Your task to perform on an android device: allow notifications from all sites in the chrome app Image 0: 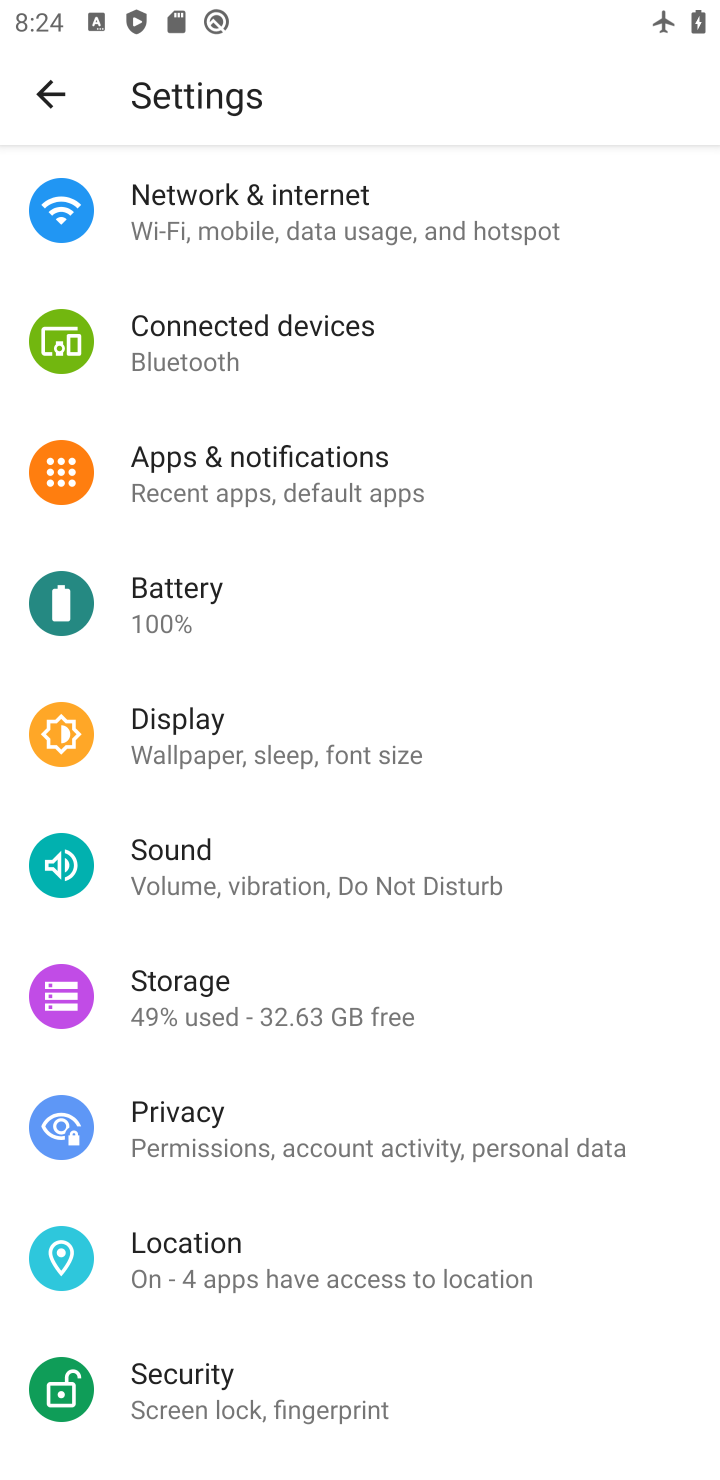
Step 0: click (408, 467)
Your task to perform on an android device: allow notifications from all sites in the chrome app Image 1: 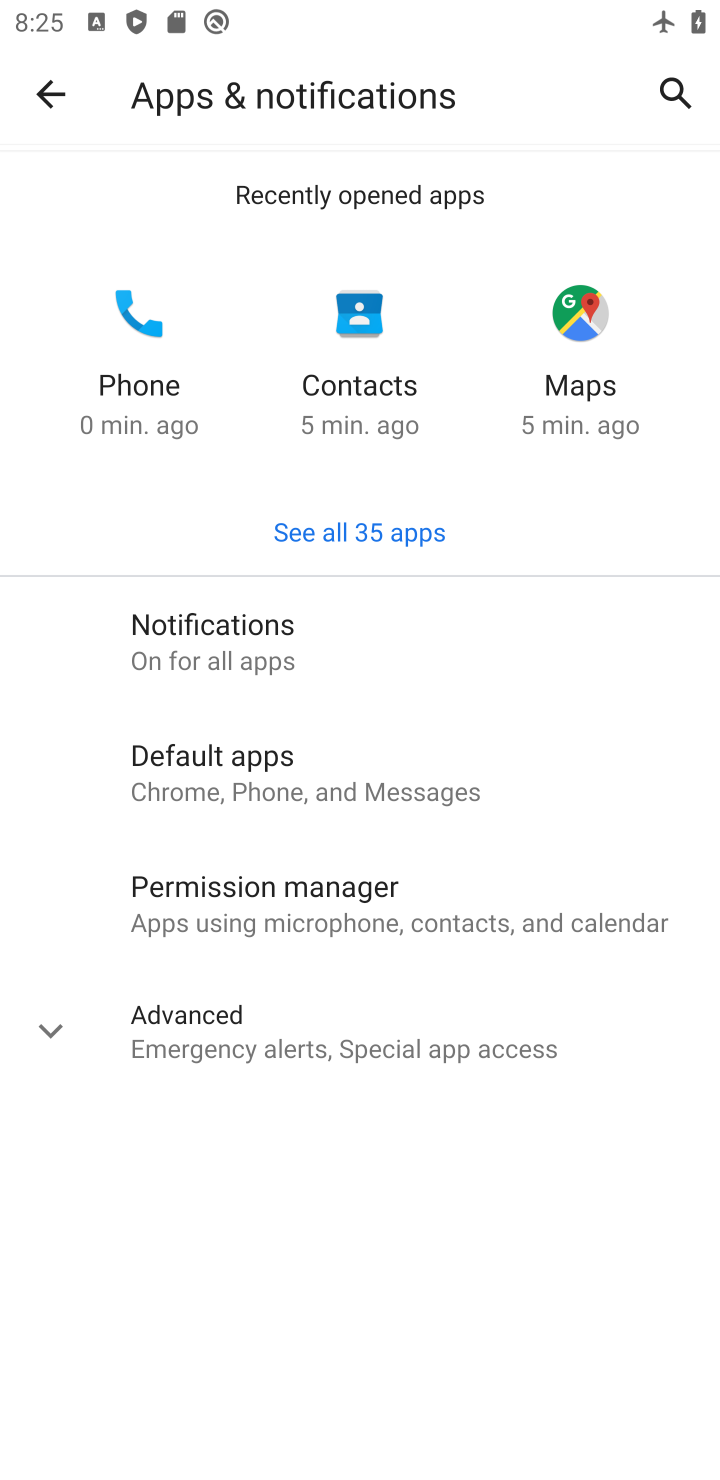
Step 1: click (375, 643)
Your task to perform on an android device: allow notifications from all sites in the chrome app Image 2: 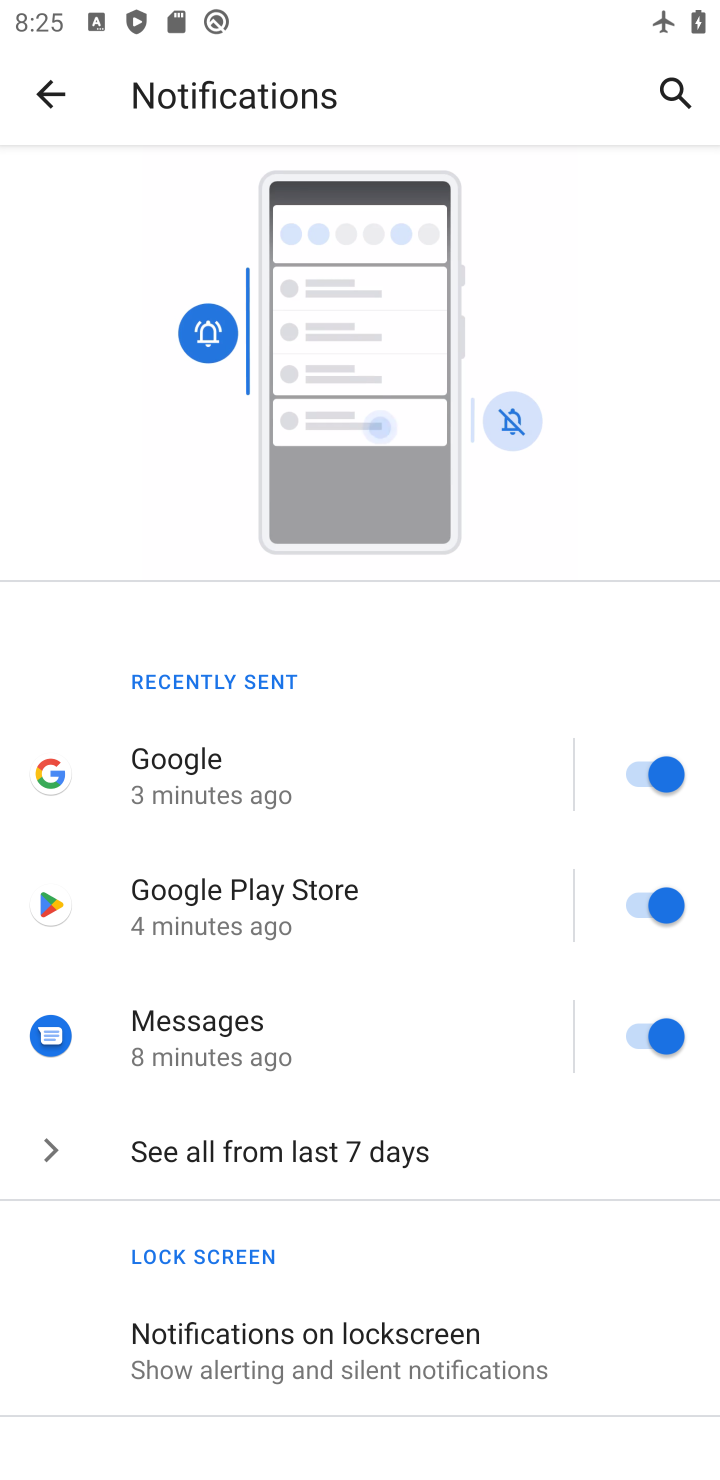
Step 2: click (333, 1139)
Your task to perform on an android device: allow notifications from all sites in the chrome app Image 3: 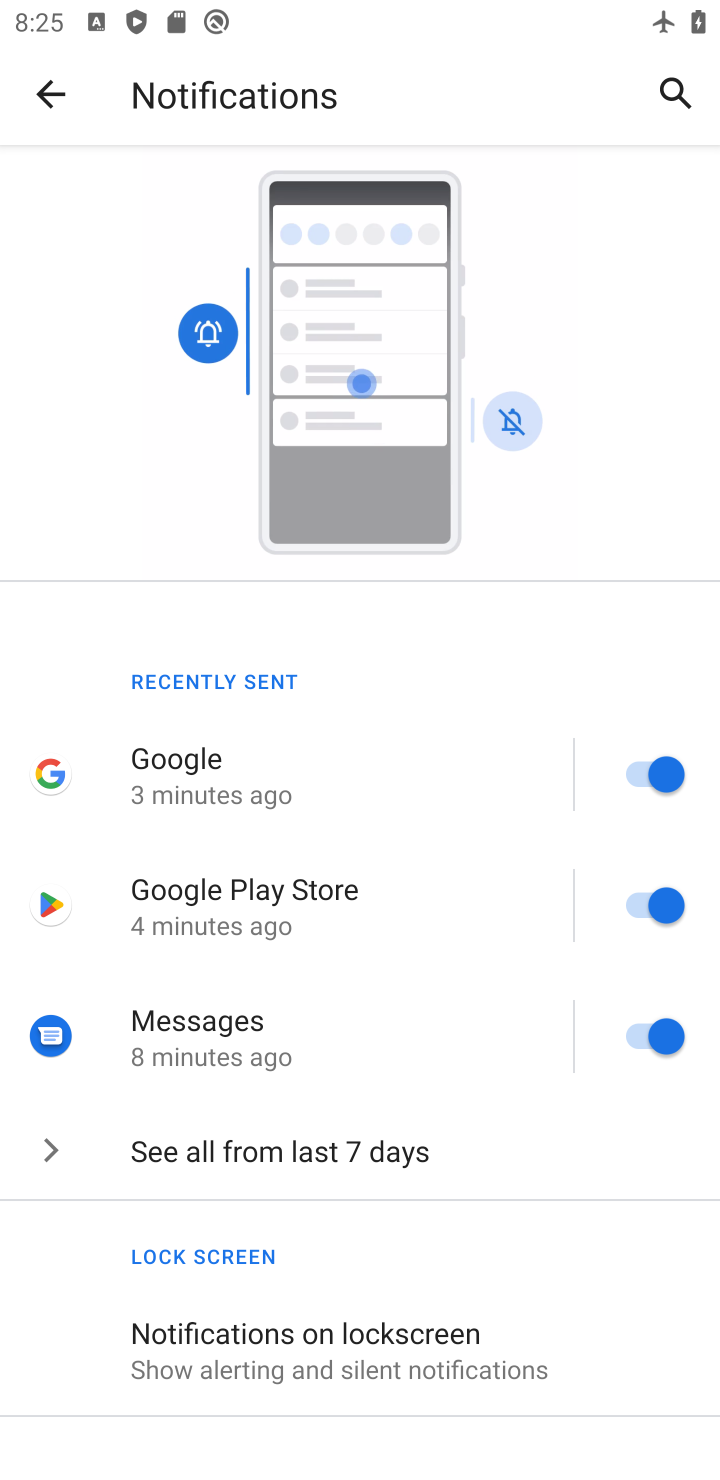
Step 3: click (333, 1139)
Your task to perform on an android device: allow notifications from all sites in the chrome app Image 4: 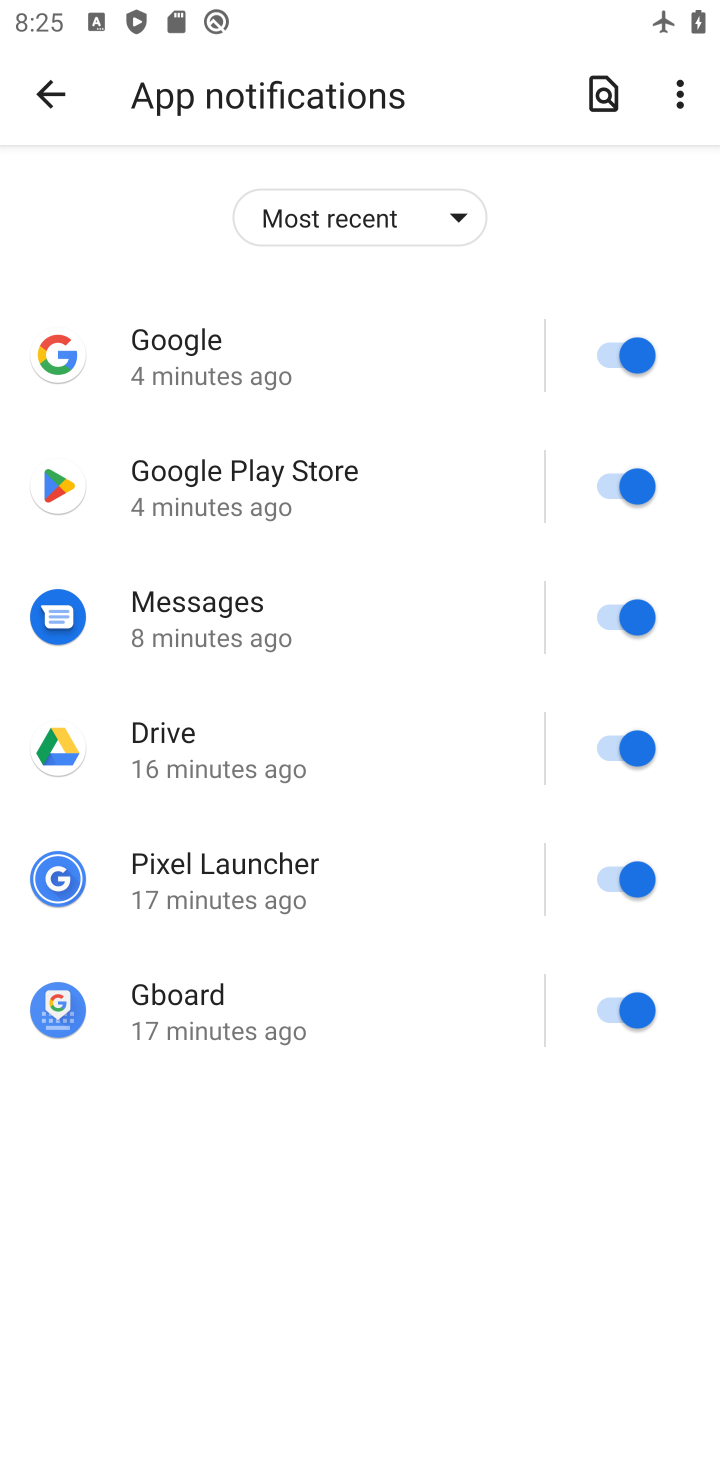
Step 4: click (47, 100)
Your task to perform on an android device: allow notifications from all sites in the chrome app Image 5: 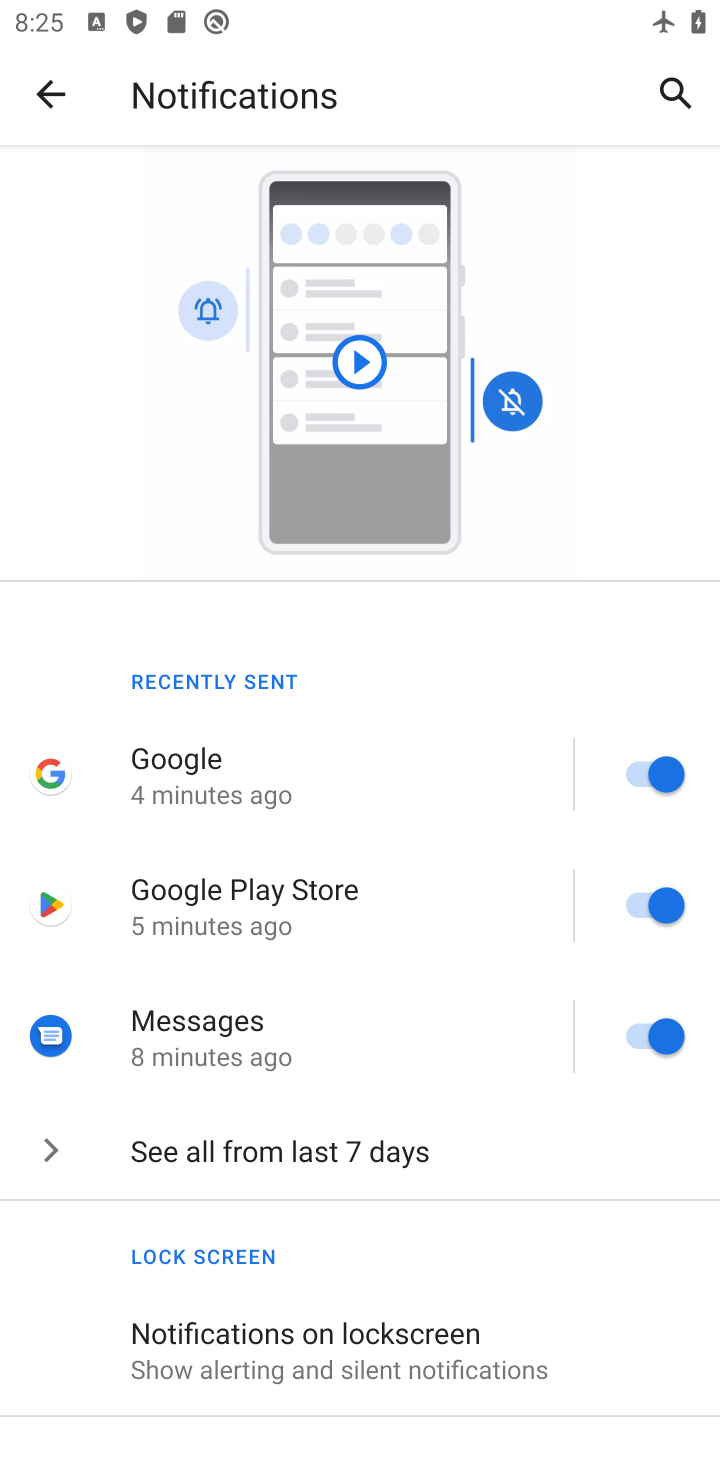
Step 5: click (47, 100)
Your task to perform on an android device: allow notifications from all sites in the chrome app Image 6: 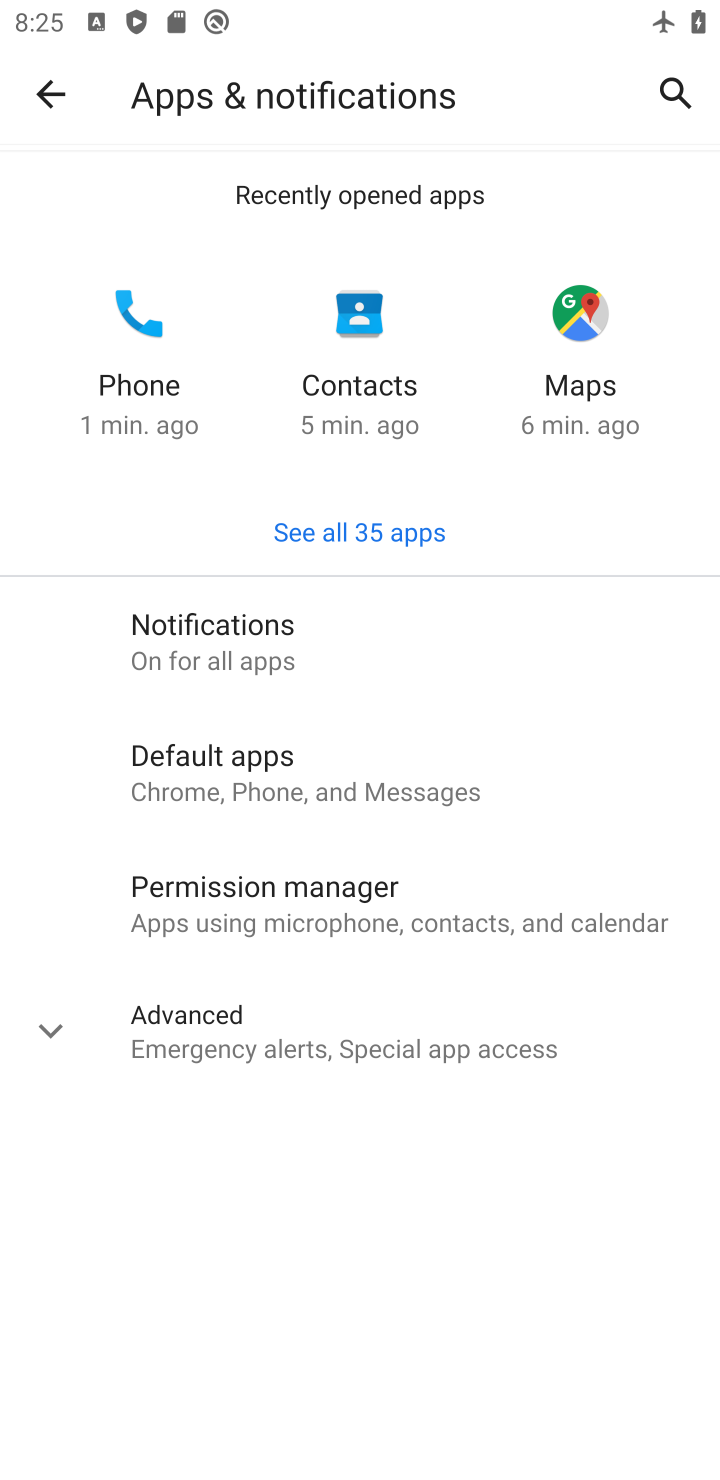
Step 6: click (357, 514)
Your task to perform on an android device: allow notifications from all sites in the chrome app Image 7: 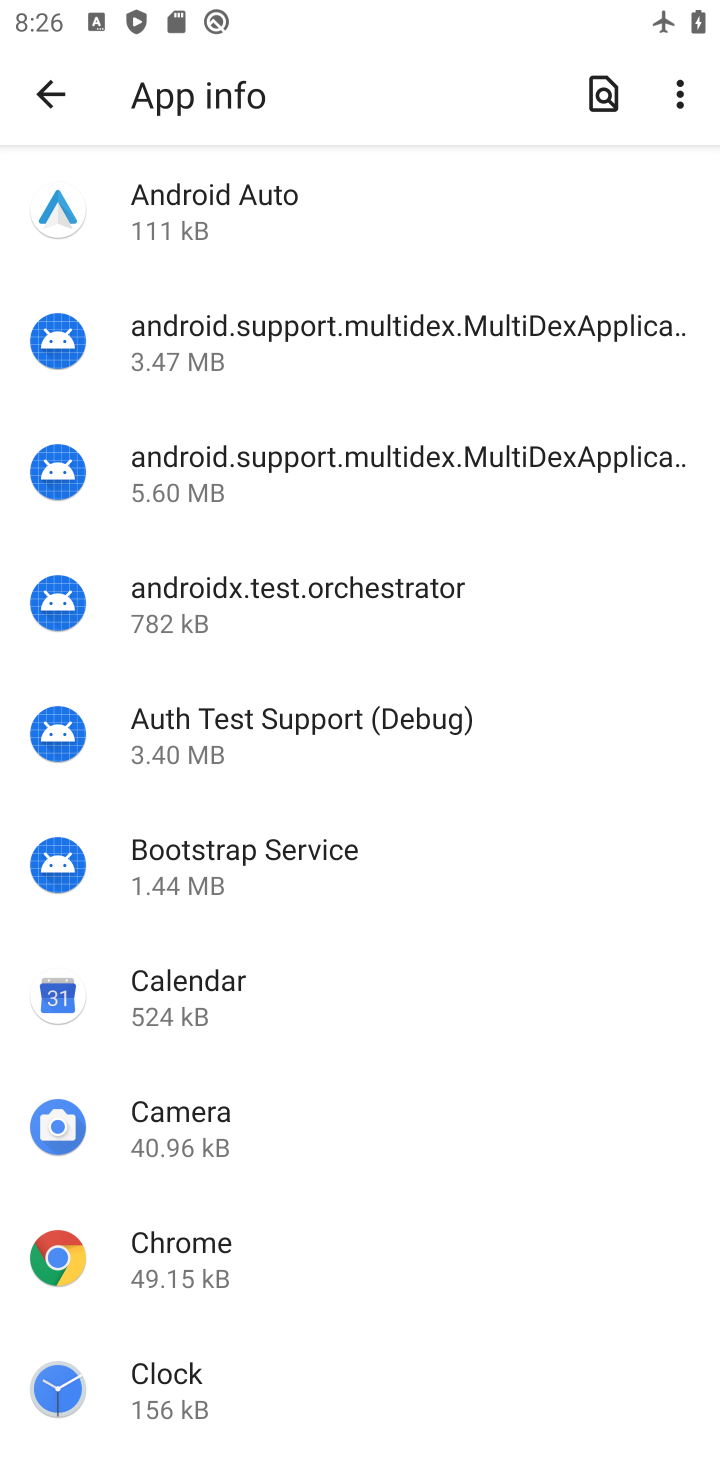
Step 7: drag from (357, 514) to (455, 101)
Your task to perform on an android device: allow notifications from all sites in the chrome app Image 8: 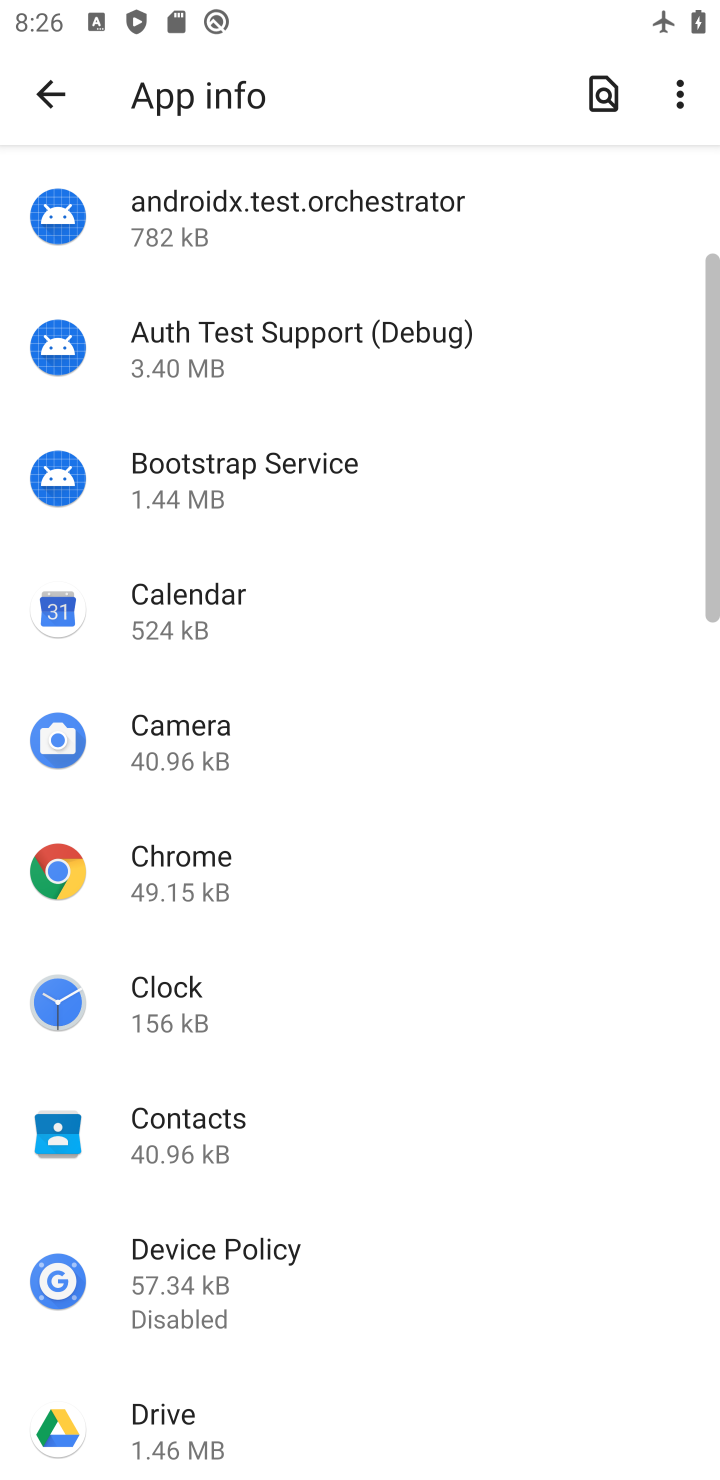
Step 8: click (455, 101)
Your task to perform on an android device: allow notifications from all sites in the chrome app Image 9: 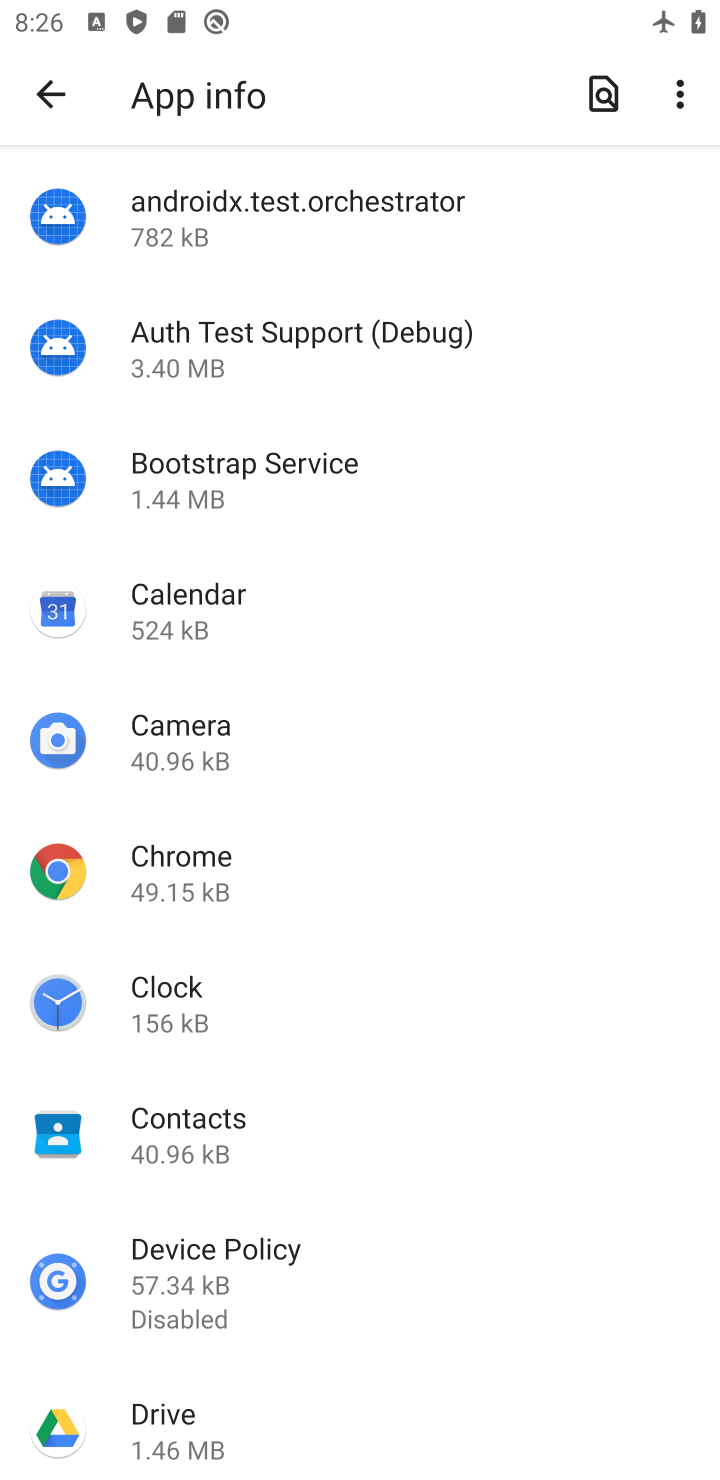
Step 9: click (374, 840)
Your task to perform on an android device: allow notifications from all sites in the chrome app Image 10: 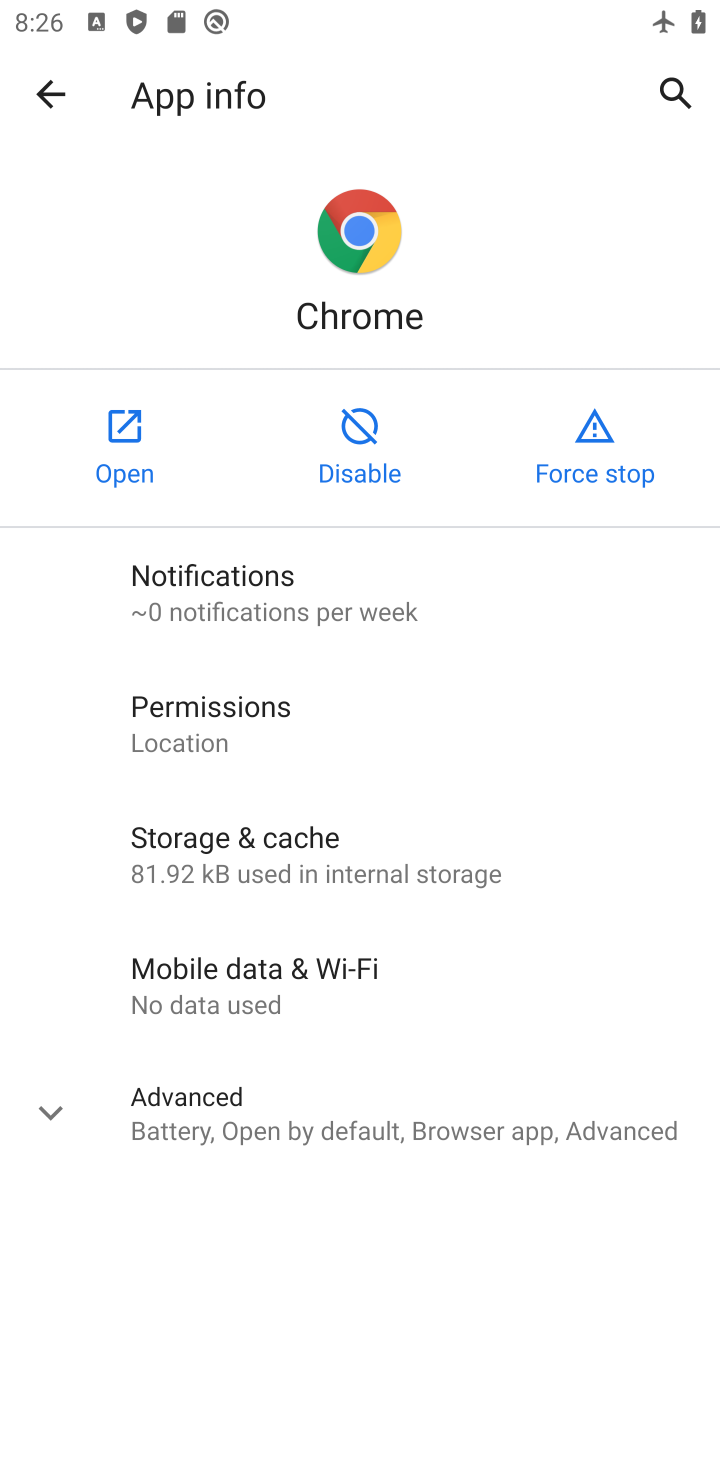
Step 10: click (227, 566)
Your task to perform on an android device: allow notifications from all sites in the chrome app Image 11: 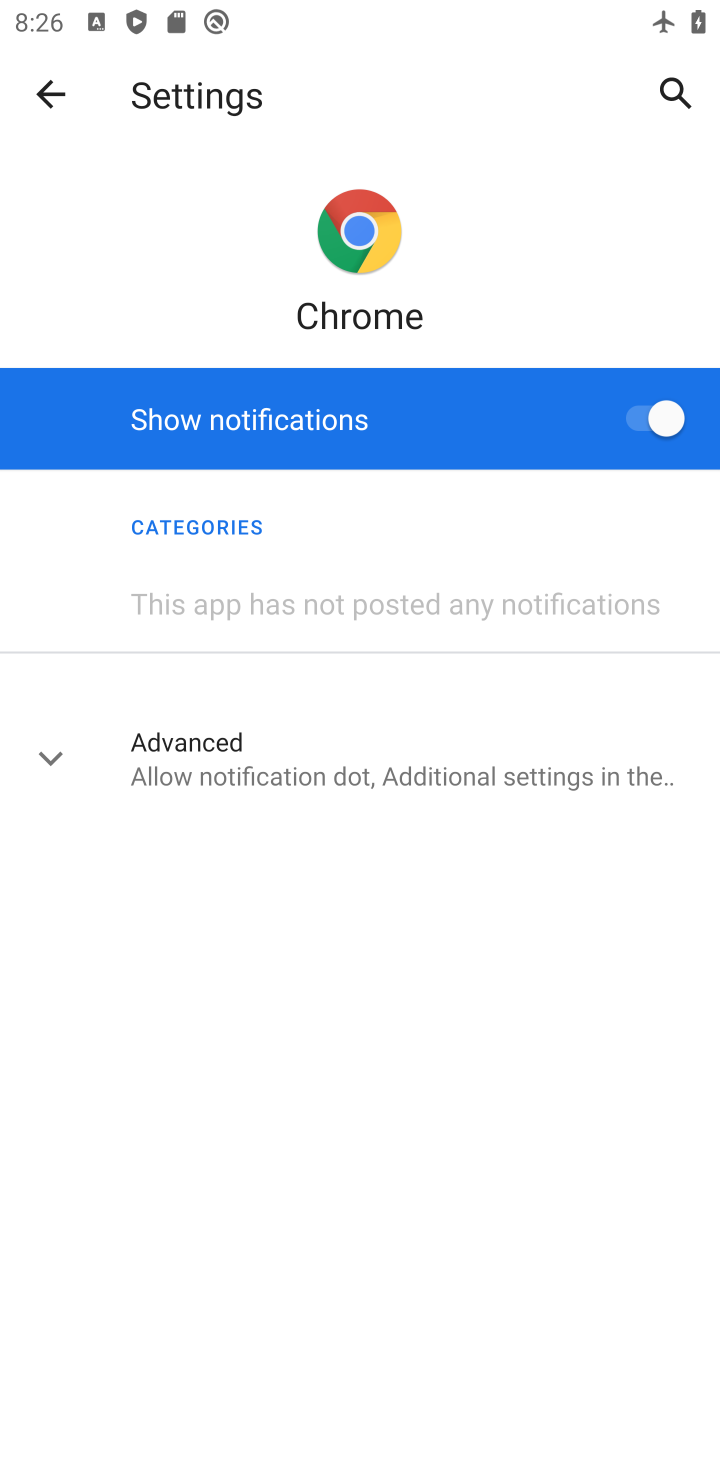
Step 11: click (390, 718)
Your task to perform on an android device: allow notifications from all sites in the chrome app Image 12: 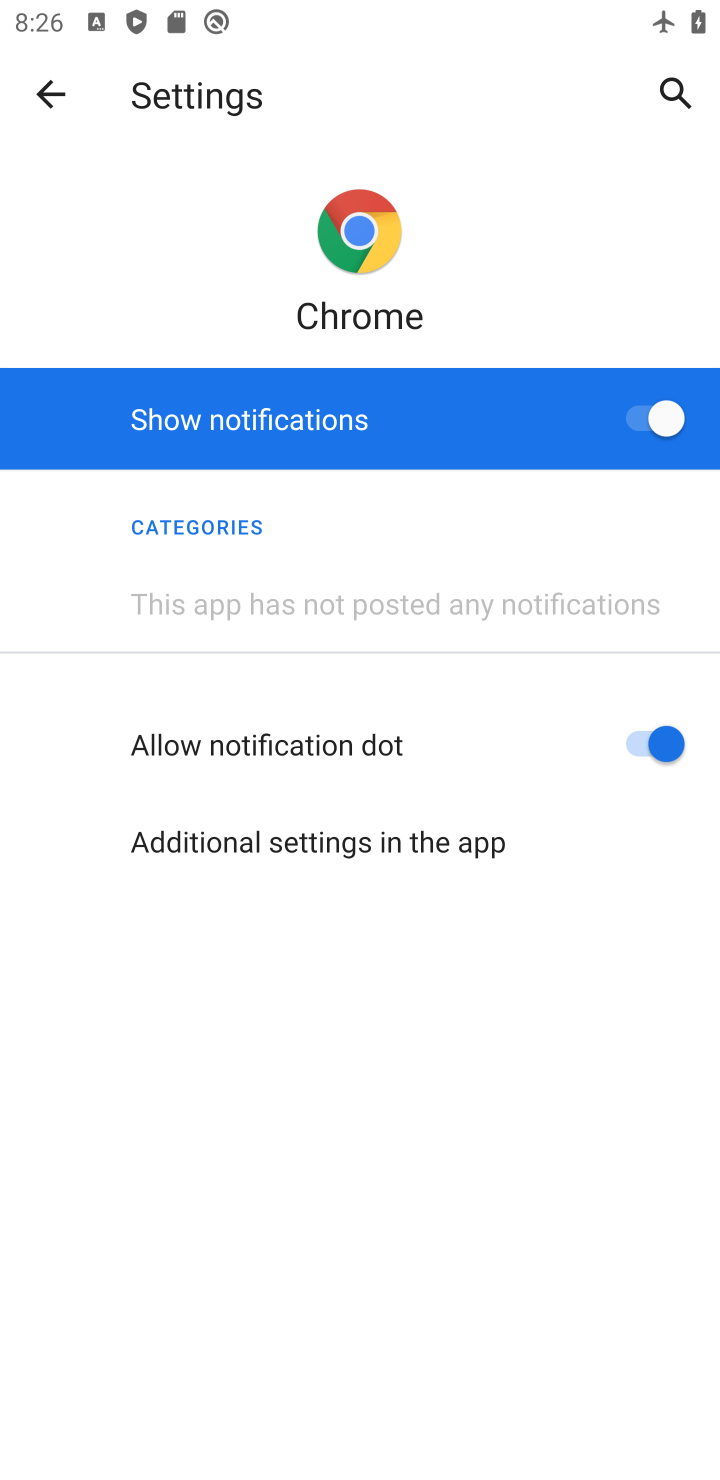
Step 12: click (351, 853)
Your task to perform on an android device: allow notifications from all sites in the chrome app Image 13: 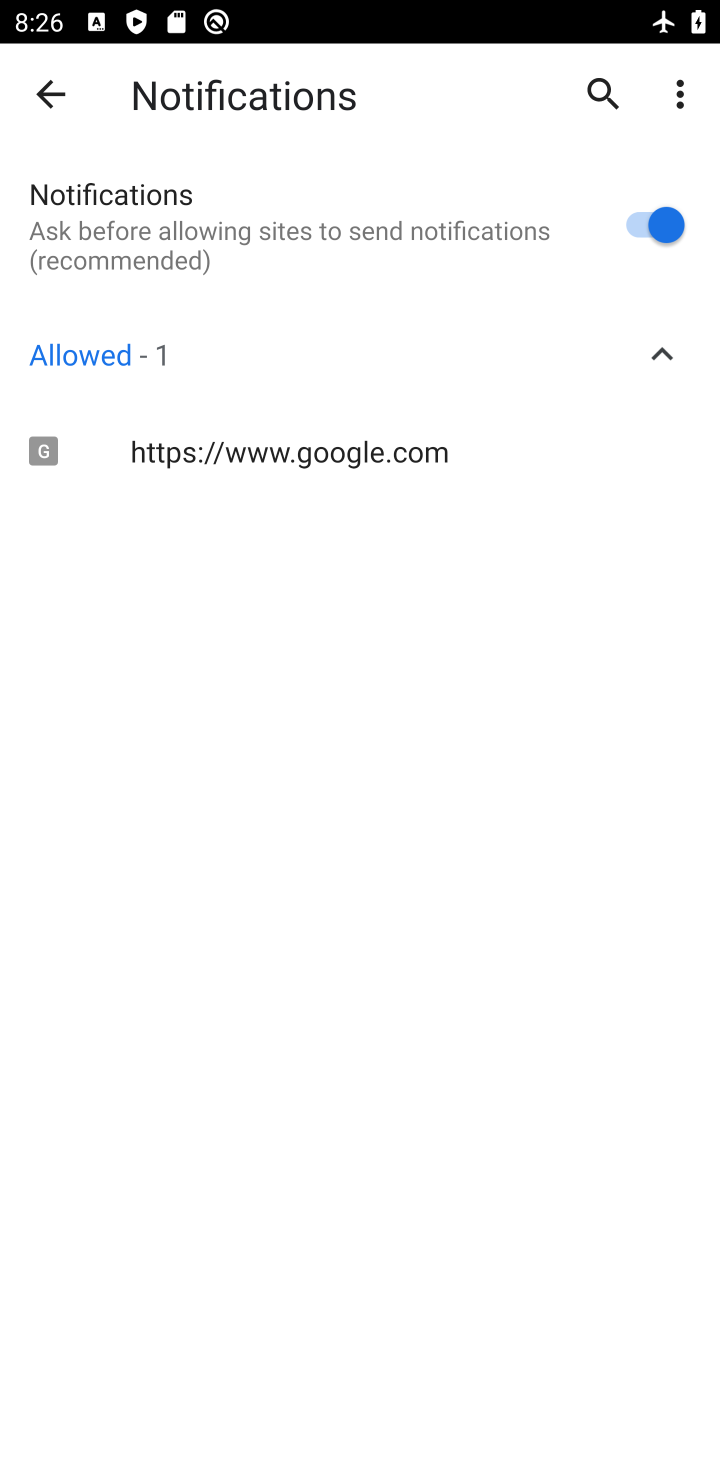
Step 13: task complete